Your task to perform on an android device: Open calendar and show me the first week of next month Image 0: 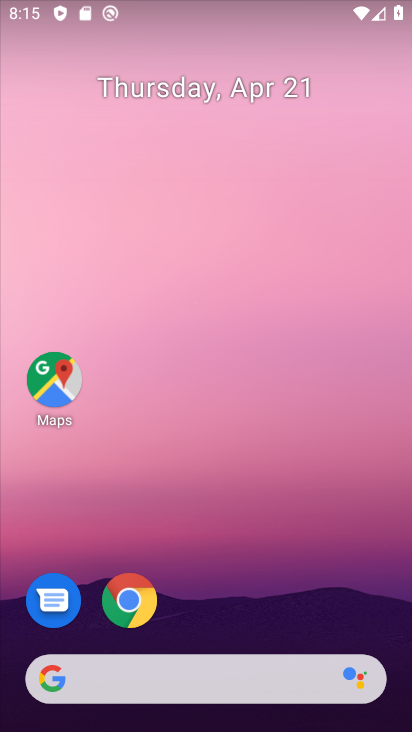
Step 0: drag from (179, 461) to (378, 177)
Your task to perform on an android device: Open calendar and show me the first week of next month Image 1: 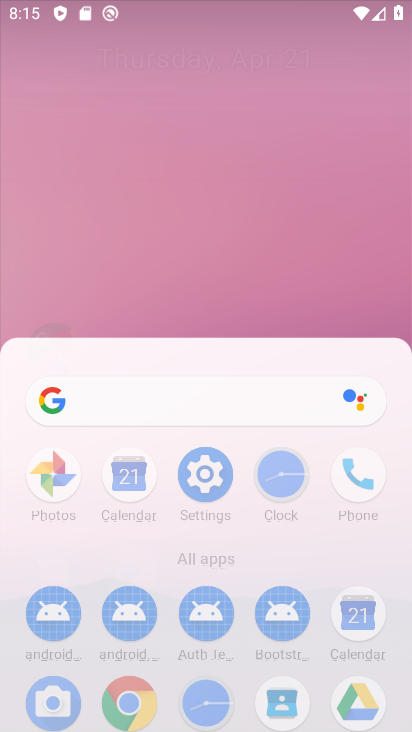
Step 1: click (303, 214)
Your task to perform on an android device: Open calendar and show me the first week of next month Image 2: 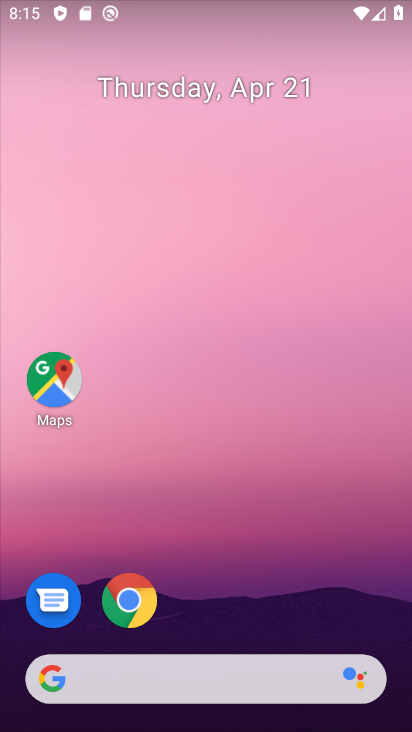
Step 2: drag from (85, 369) to (354, 22)
Your task to perform on an android device: Open calendar and show me the first week of next month Image 3: 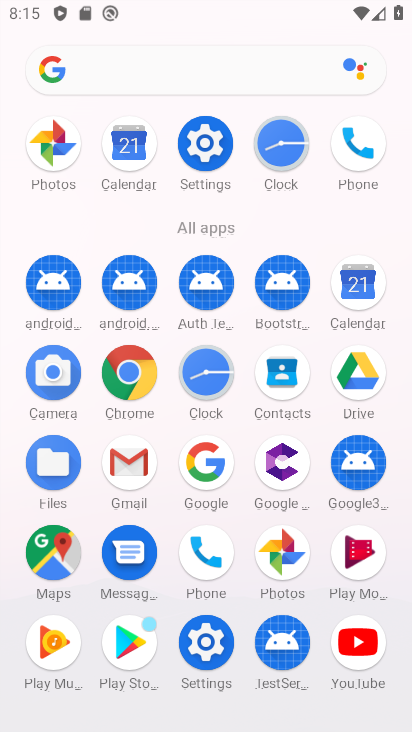
Step 3: click (350, 296)
Your task to perform on an android device: Open calendar and show me the first week of next month Image 4: 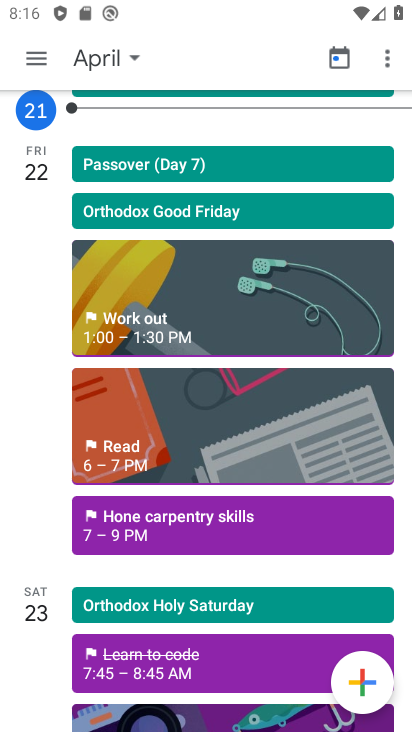
Step 4: click (105, 46)
Your task to perform on an android device: Open calendar and show me the first week of next month Image 5: 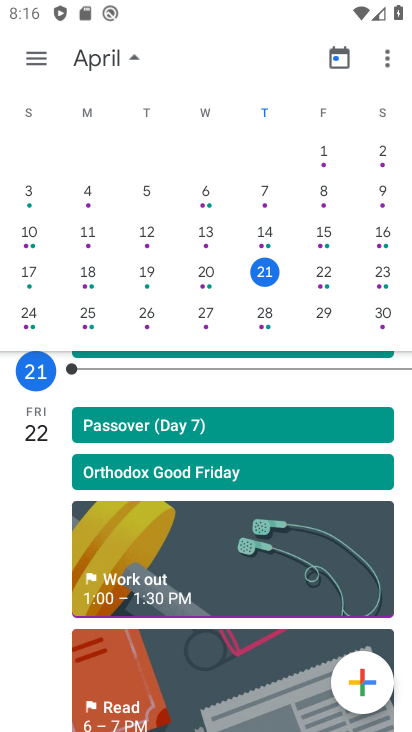
Step 5: drag from (366, 246) to (33, 222)
Your task to perform on an android device: Open calendar and show me the first week of next month Image 6: 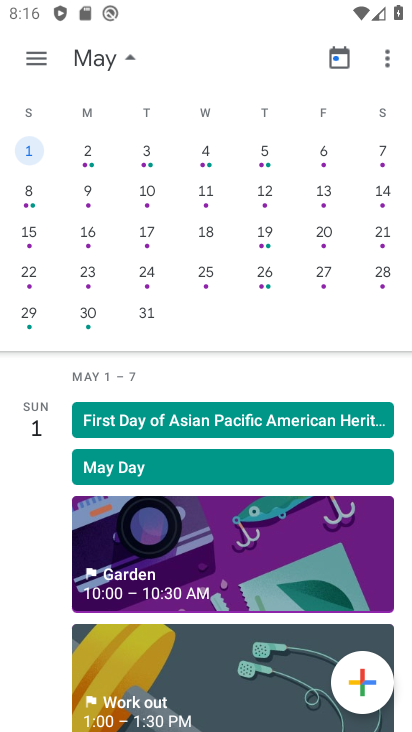
Step 6: click (84, 155)
Your task to perform on an android device: Open calendar and show me the first week of next month Image 7: 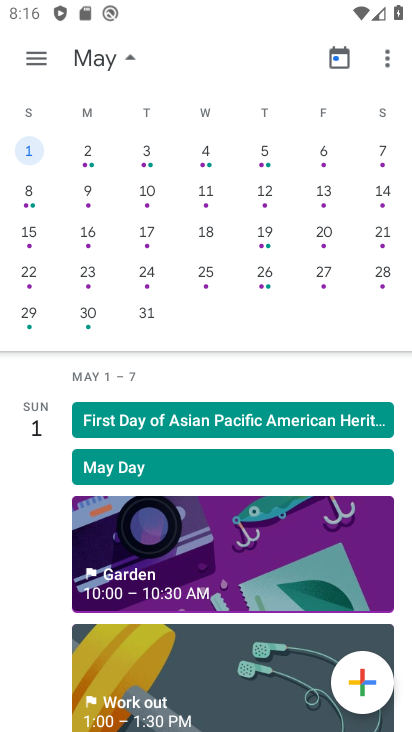
Step 7: click (89, 149)
Your task to perform on an android device: Open calendar and show me the first week of next month Image 8: 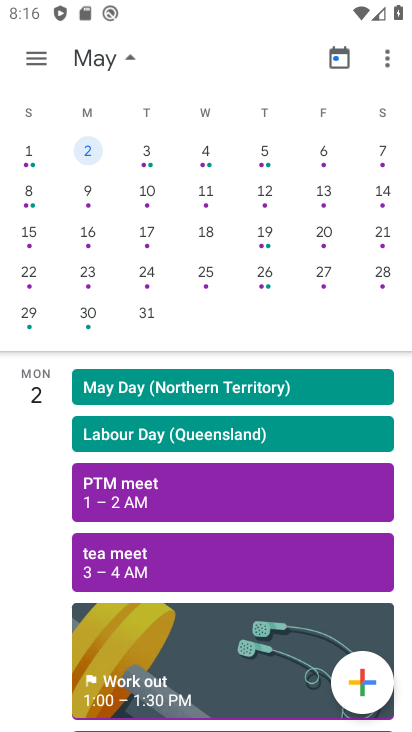
Step 8: click (140, 149)
Your task to perform on an android device: Open calendar and show me the first week of next month Image 9: 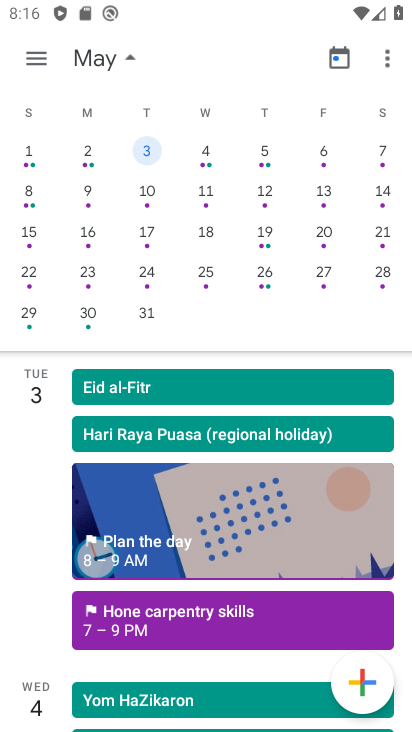
Step 9: click (211, 158)
Your task to perform on an android device: Open calendar and show me the first week of next month Image 10: 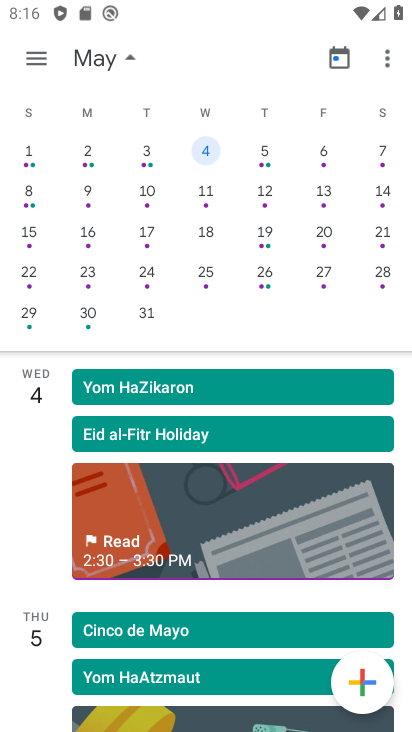
Step 10: click (265, 145)
Your task to perform on an android device: Open calendar and show me the first week of next month Image 11: 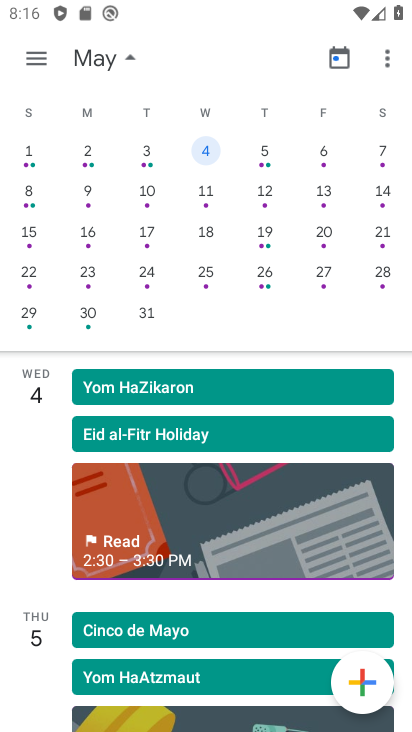
Step 11: click (326, 156)
Your task to perform on an android device: Open calendar and show me the first week of next month Image 12: 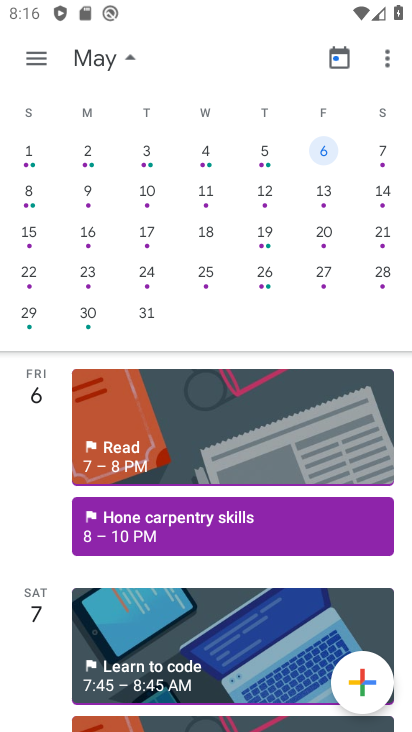
Step 12: task complete